Your task to perform on an android device: set the stopwatch Image 0: 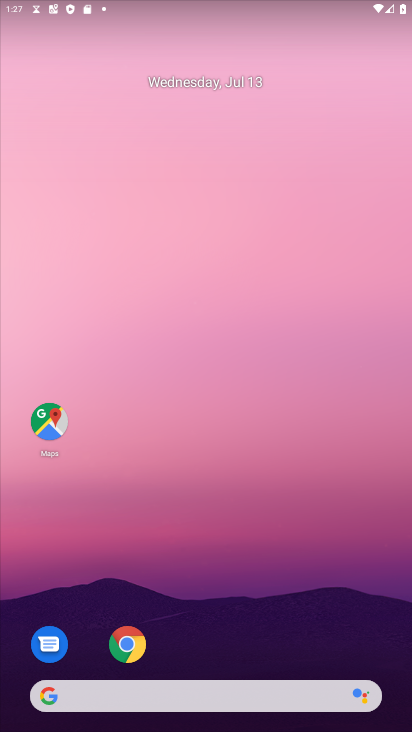
Step 0: drag from (256, 607) to (228, 99)
Your task to perform on an android device: set the stopwatch Image 1: 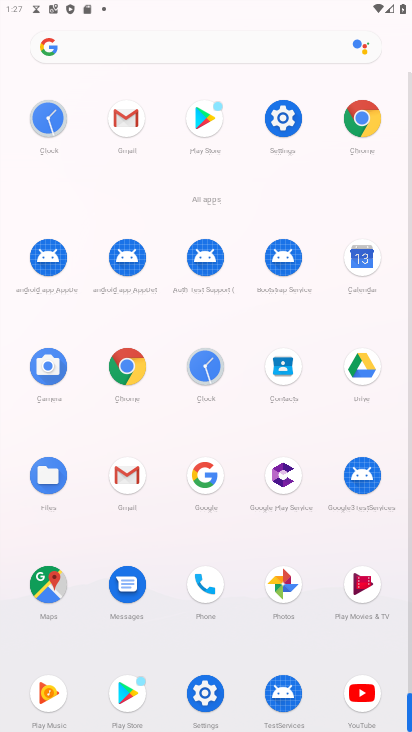
Step 1: click (206, 364)
Your task to perform on an android device: set the stopwatch Image 2: 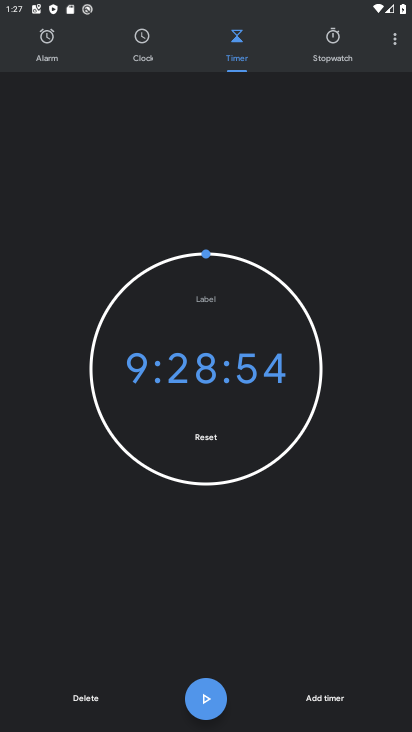
Step 2: click (339, 30)
Your task to perform on an android device: set the stopwatch Image 3: 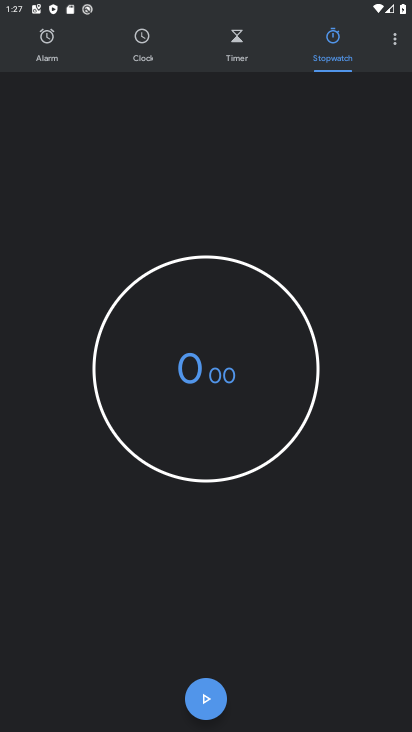
Step 3: click (204, 700)
Your task to perform on an android device: set the stopwatch Image 4: 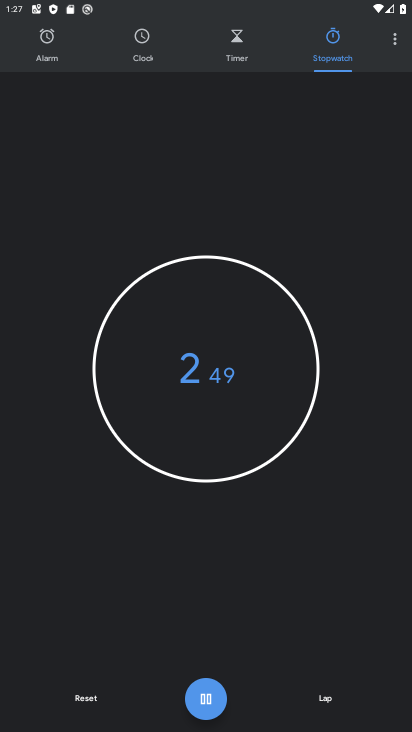
Step 4: click (203, 704)
Your task to perform on an android device: set the stopwatch Image 5: 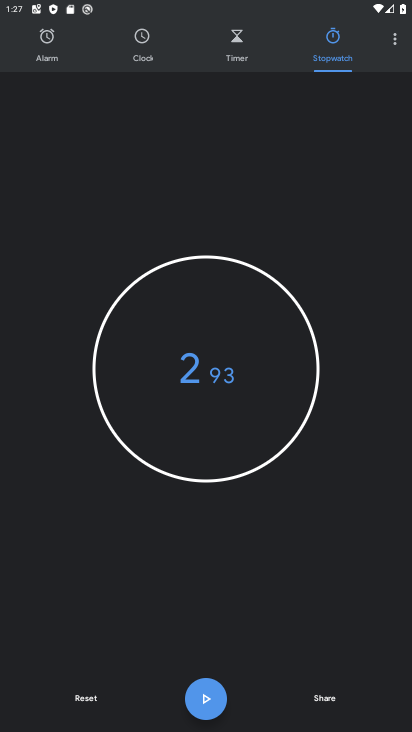
Step 5: task complete